Your task to perform on an android device: Search for "custom wallet" on Etsy. Image 0: 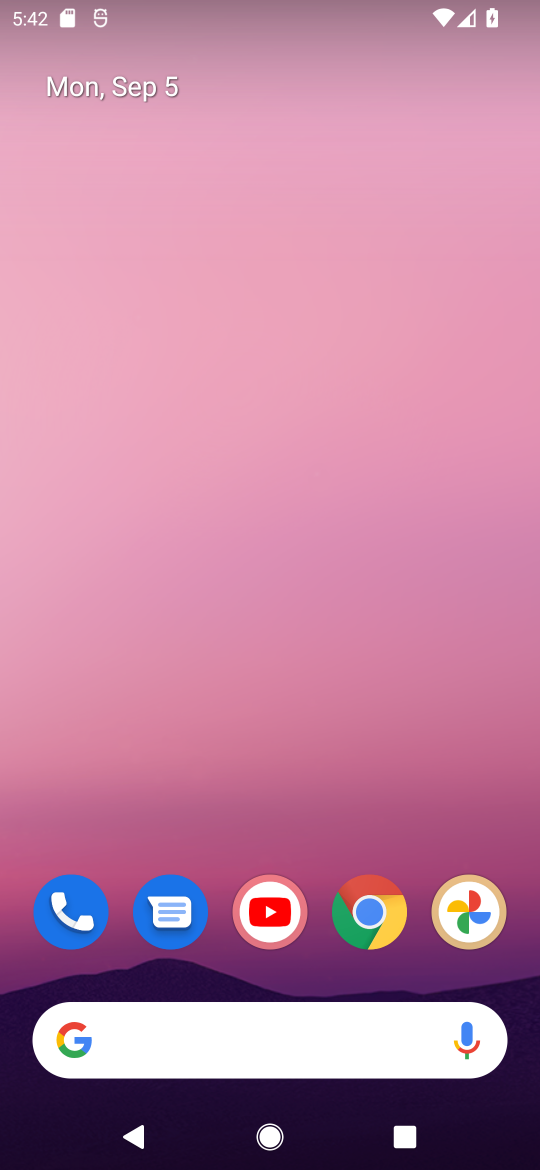
Step 0: click (370, 909)
Your task to perform on an android device: Search for "custom wallet" on Etsy. Image 1: 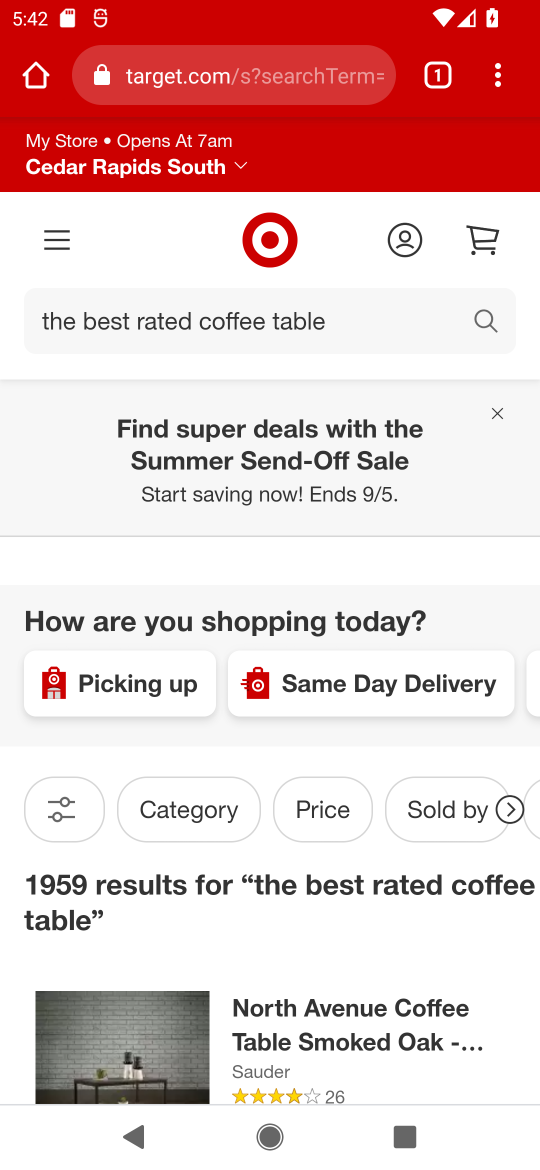
Step 1: click (252, 67)
Your task to perform on an android device: Search for "custom wallet" on Etsy. Image 2: 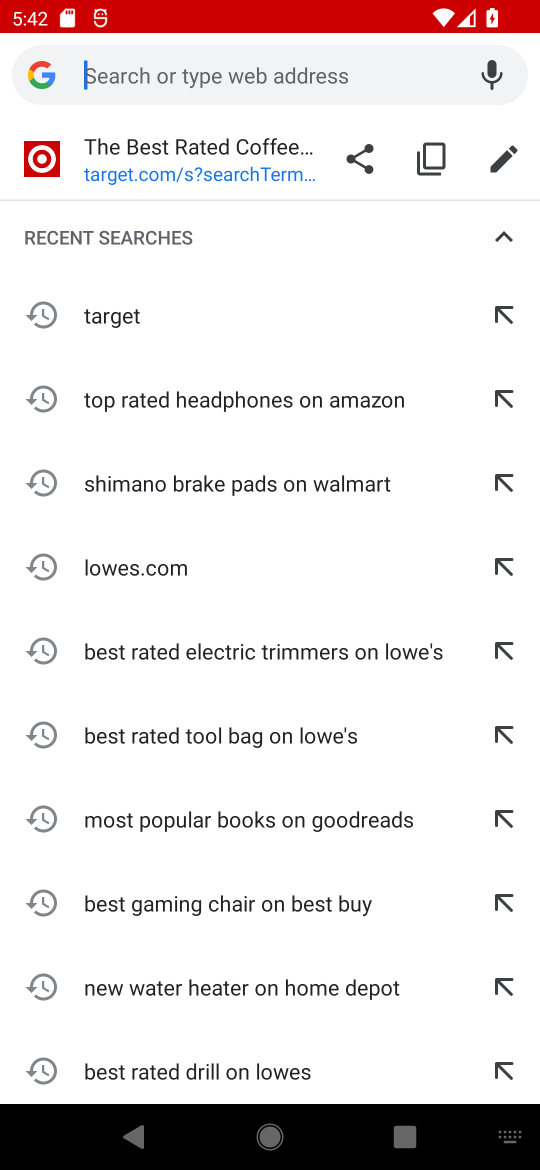
Step 2: type "Etsy"
Your task to perform on an android device: Search for "custom wallet" on Etsy. Image 3: 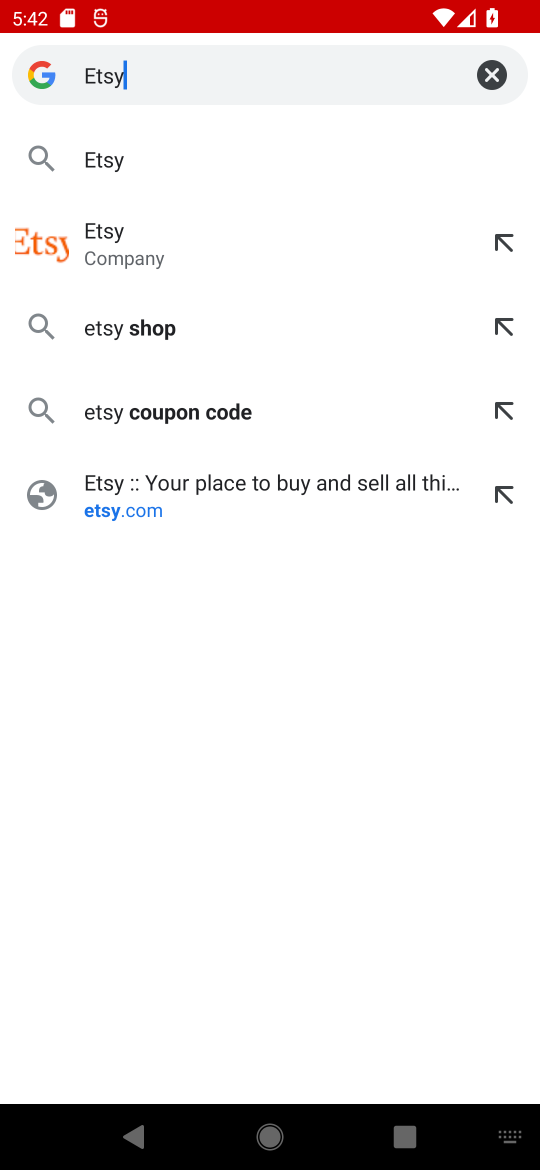
Step 3: click (92, 145)
Your task to perform on an android device: Search for "custom wallet" on Etsy. Image 4: 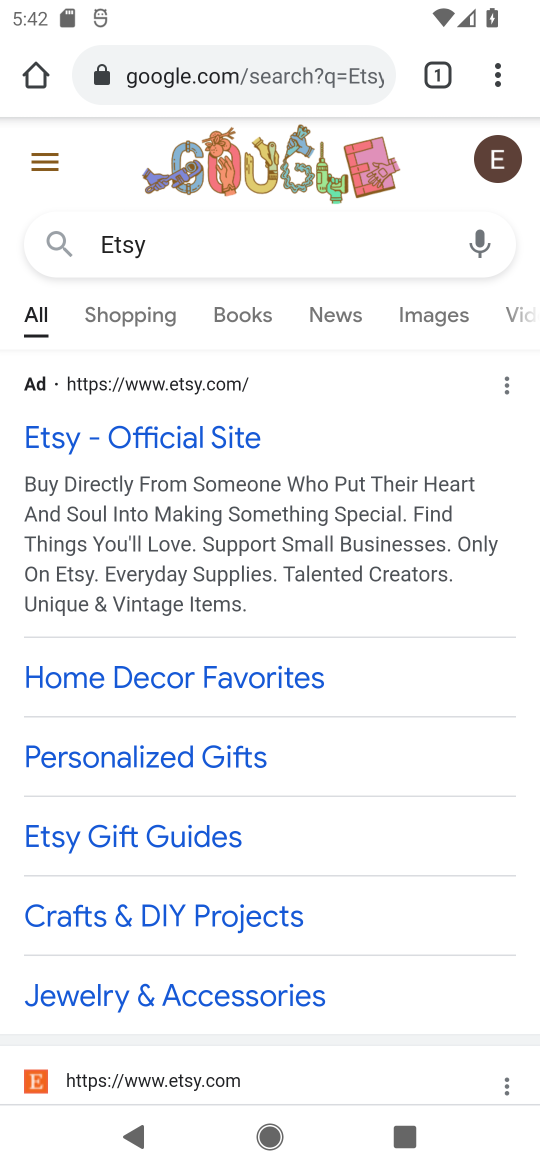
Step 4: click (196, 409)
Your task to perform on an android device: Search for "custom wallet" on Etsy. Image 5: 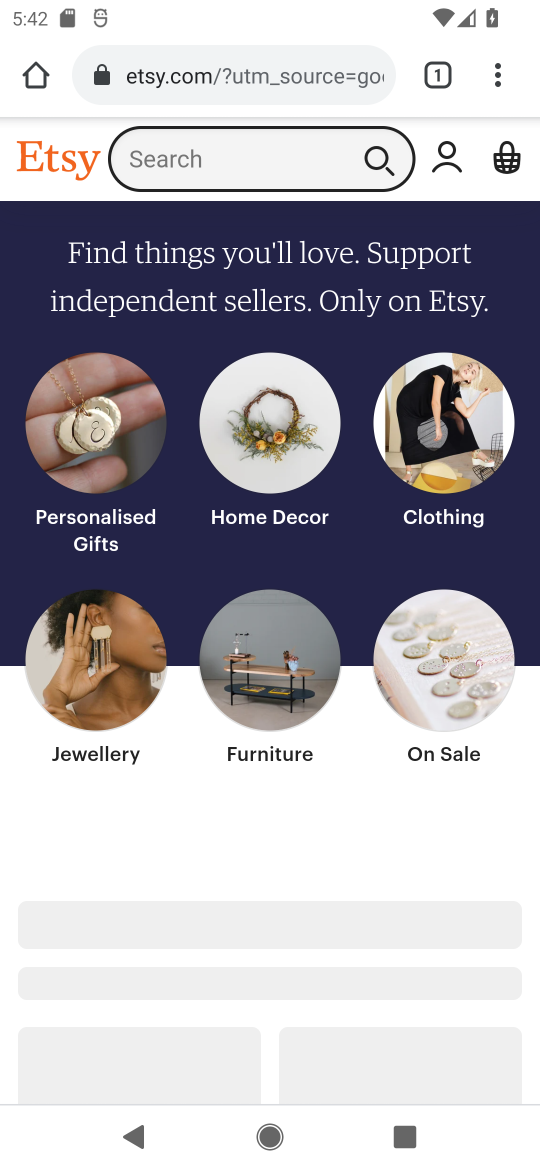
Step 5: click (171, 154)
Your task to perform on an android device: Search for "custom wallet" on Etsy. Image 6: 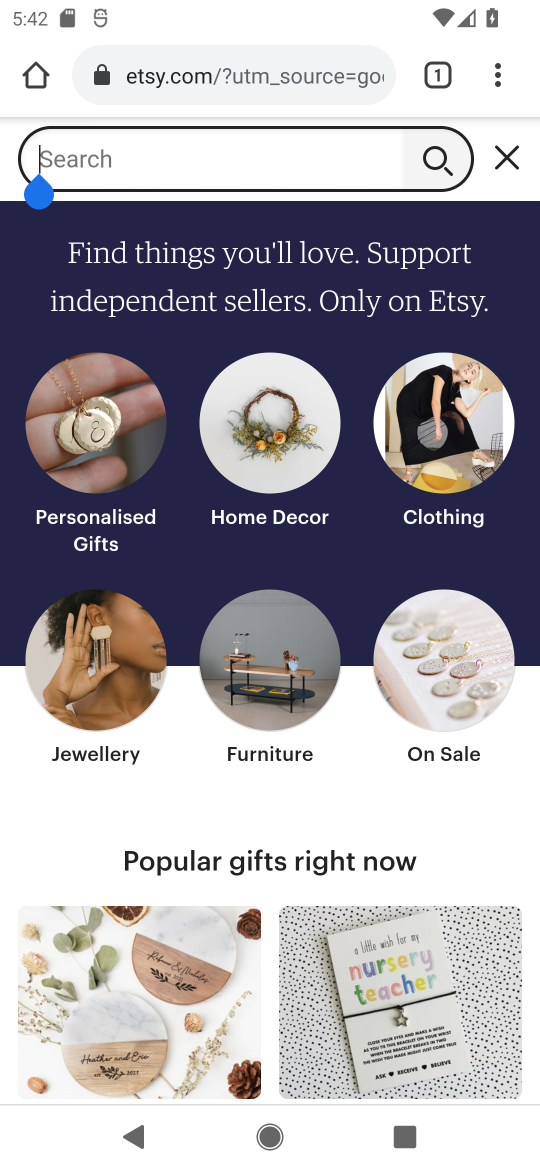
Step 6: type "custom wallet"
Your task to perform on an android device: Search for "custom wallet" on Etsy. Image 7: 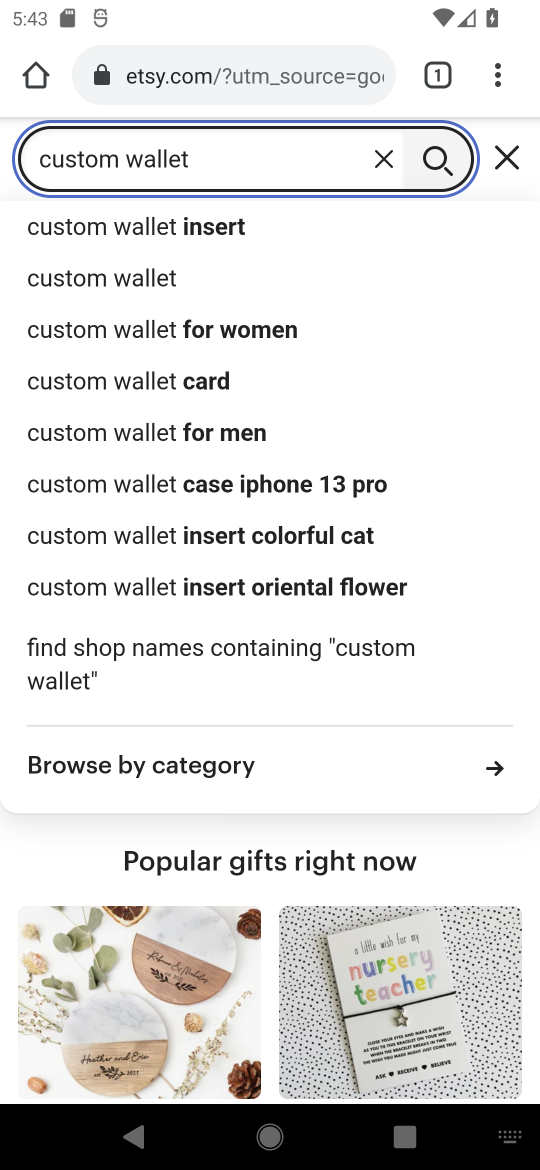
Step 7: click (109, 281)
Your task to perform on an android device: Search for "custom wallet" on Etsy. Image 8: 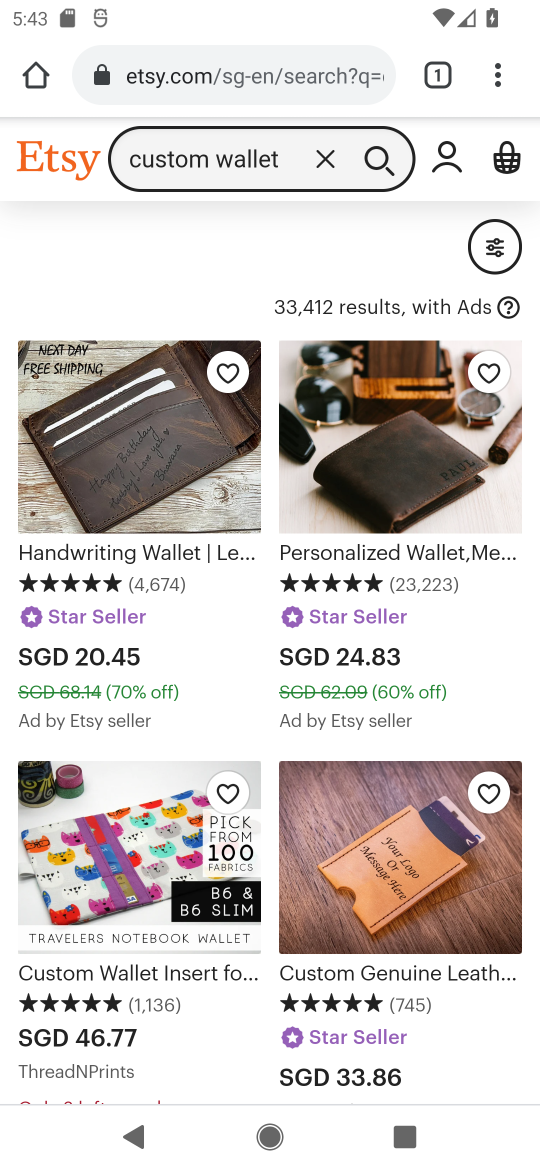
Step 8: task complete